Your task to perform on an android device: change text size in settings app Image 0: 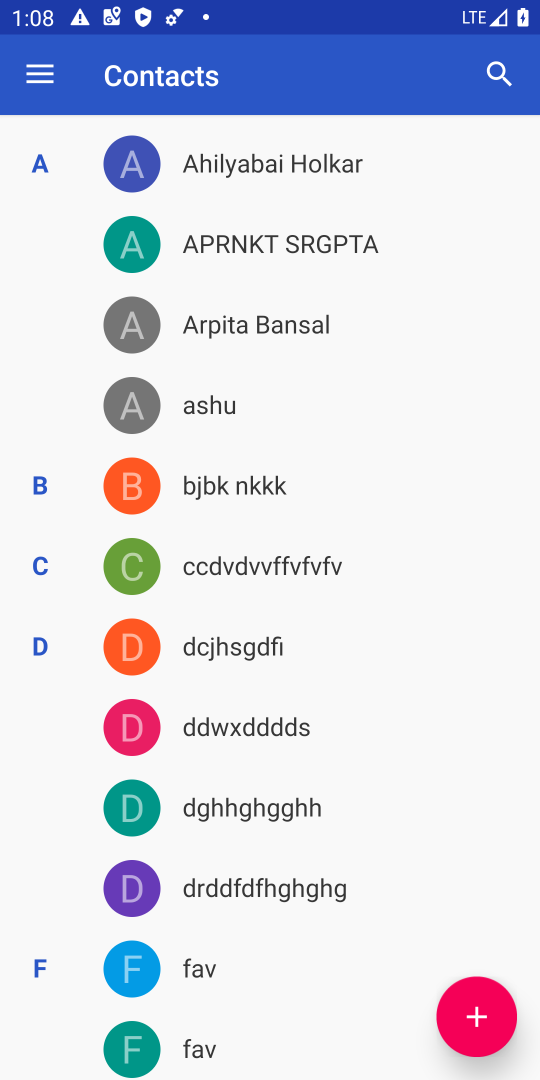
Step 0: press home button
Your task to perform on an android device: change text size in settings app Image 1: 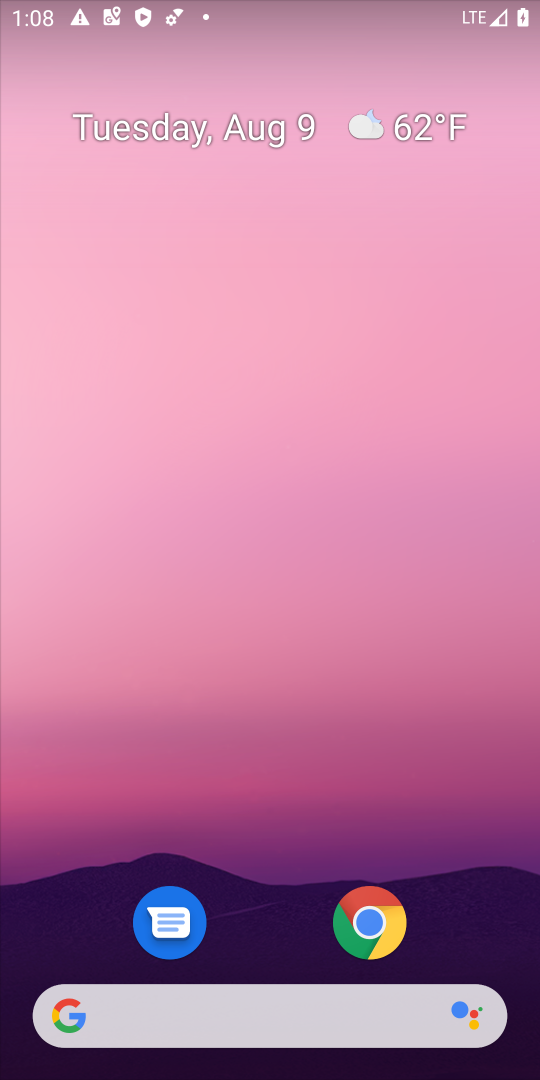
Step 1: drag from (288, 945) to (458, 518)
Your task to perform on an android device: change text size in settings app Image 2: 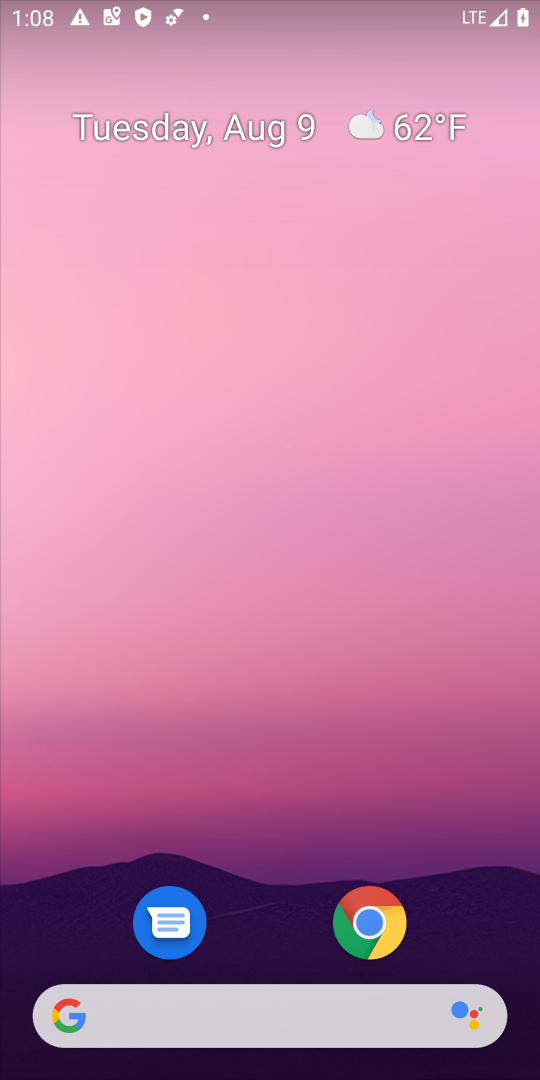
Step 2: drag from (268, 983) to (445, 367)
Your task to perform on an android device: change text size in settings app Image 3: 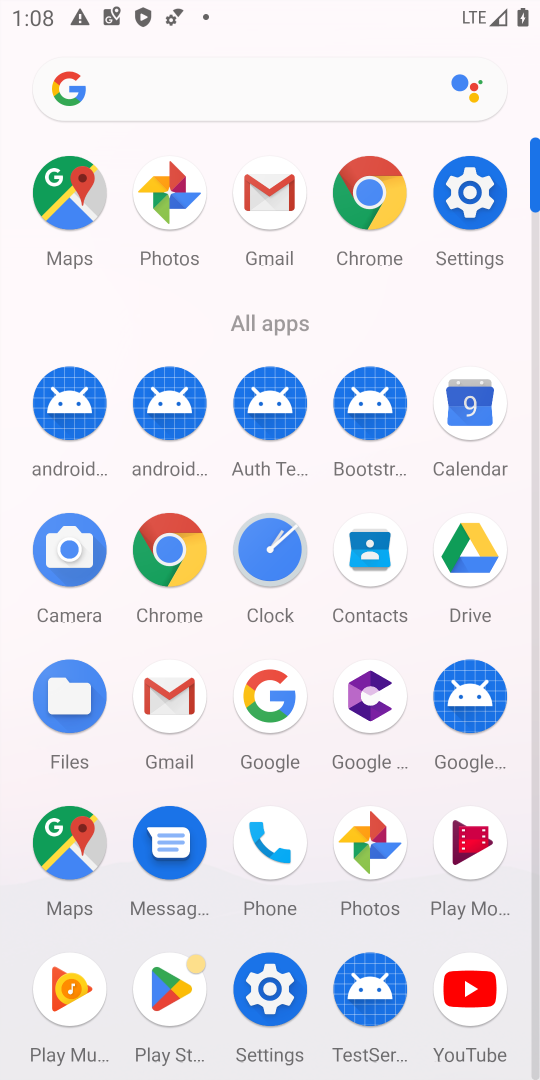
Step 3: click (253, 999)
Your task to perform on an android device: change text size in settings app Image 4: 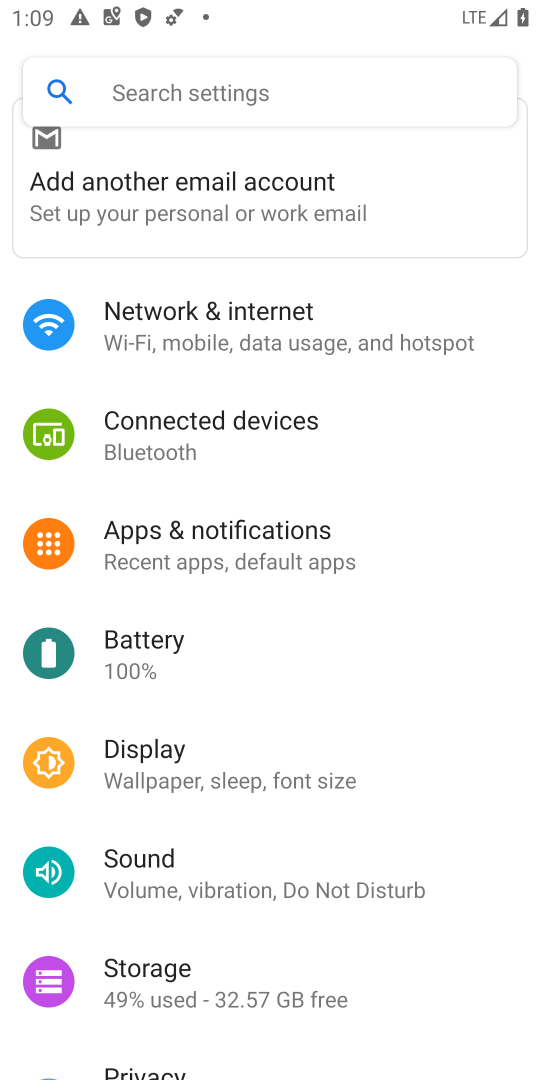
Step 4: click (168, 761)
Your task to perform on an android device: change text size in settings app Image 5: 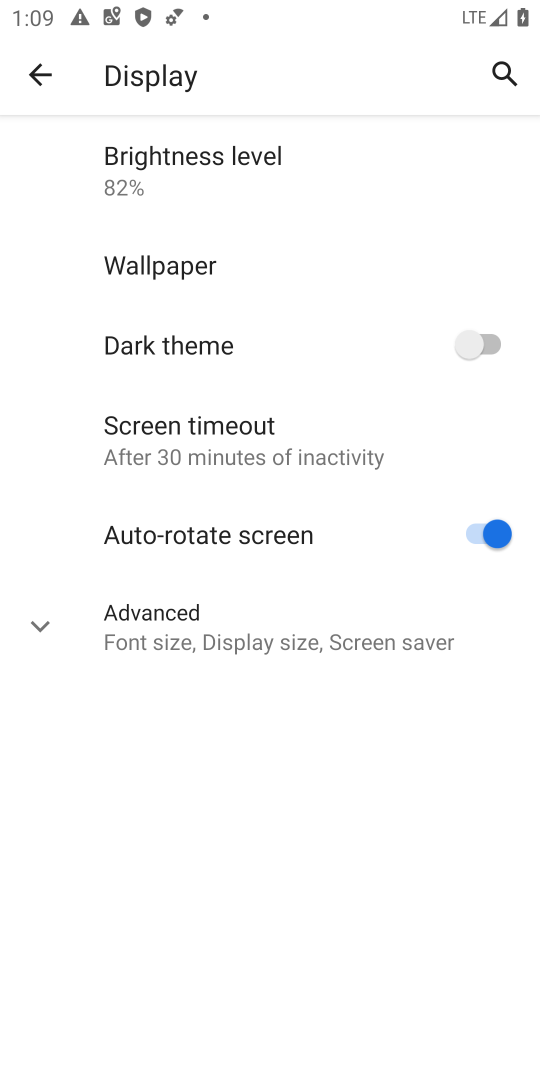
Step 5: click (149, 655)
Your task to perform on an android device: change text size in settings app Image 6: 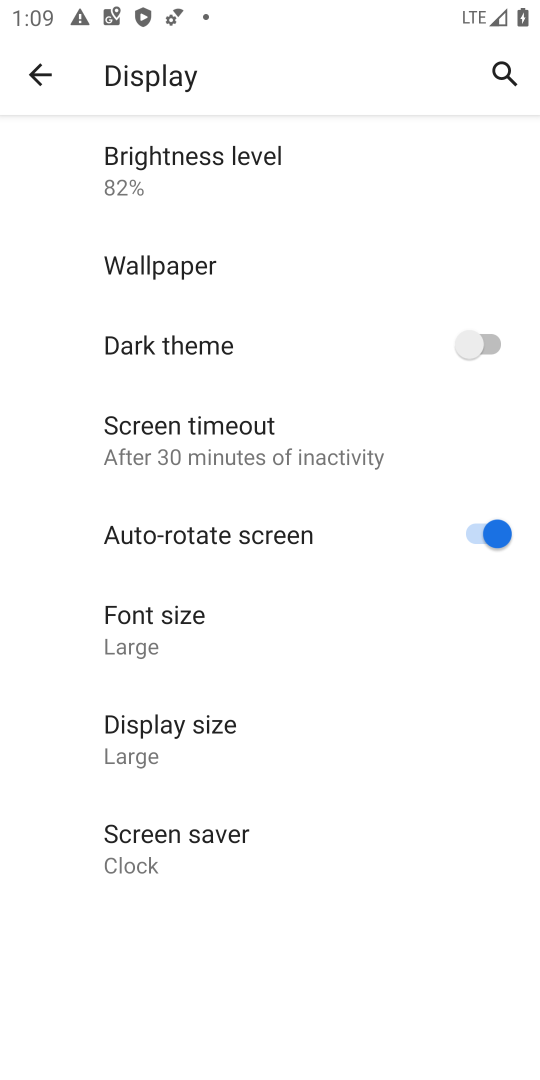
Step 6: click (182, 649)
Your task to perform on an android device: change text size in settings app Image 7: 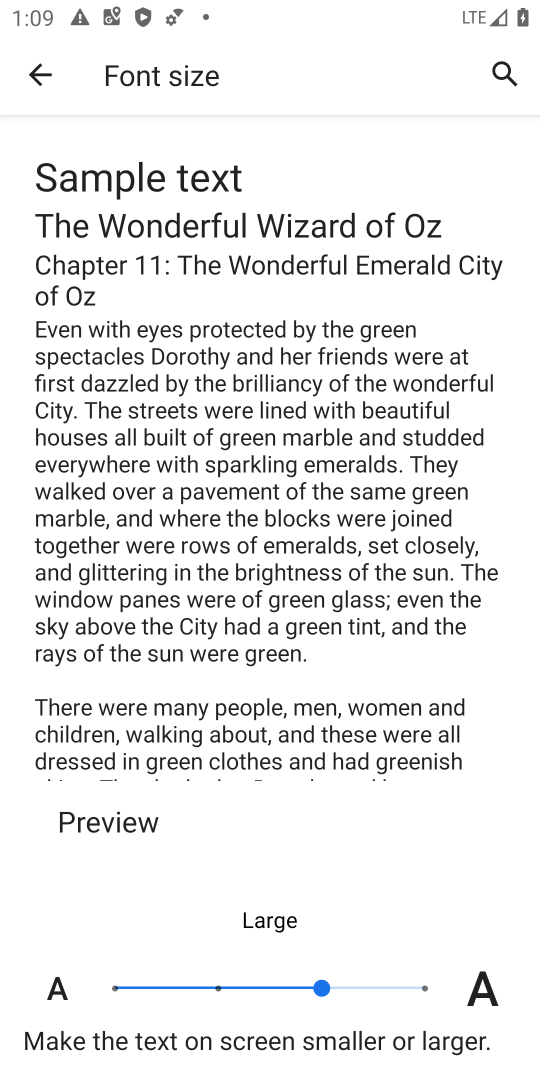
Step 7: click (219, 977)
Your task to perform on an android device: change text size in settings app Image 8: 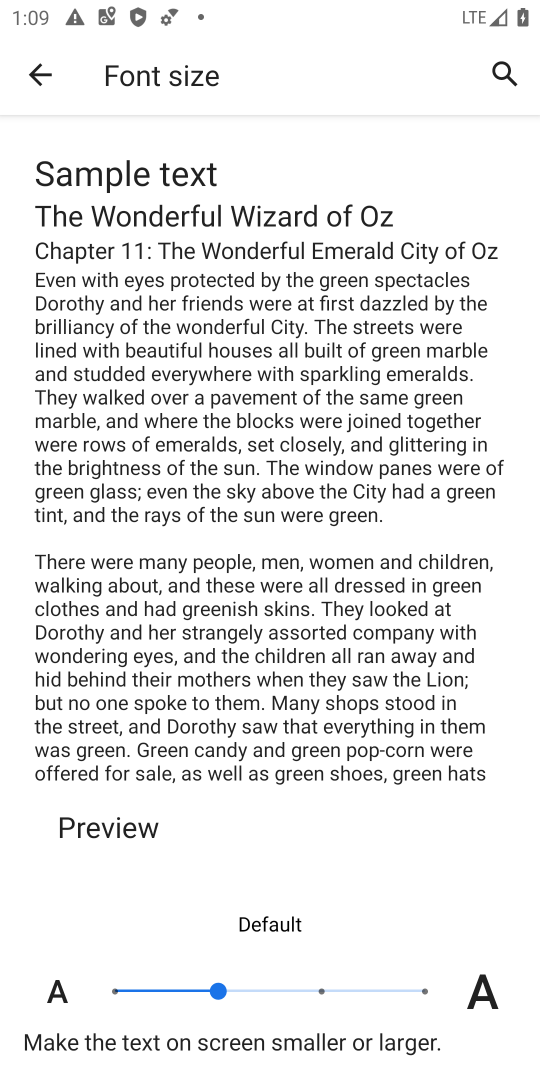
Step 8: task complete